Your task to perform on an android device: turn pop-ups on in chrome Image 0: 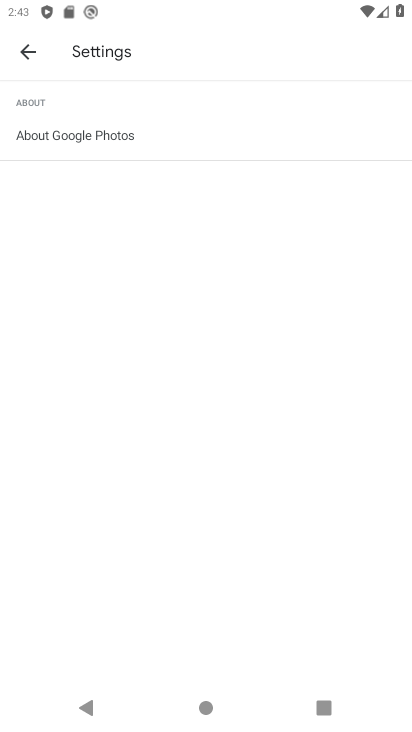
Step 0: press home button
Your task to perform on an android device: turn pop-ups on in chrome Image 1: 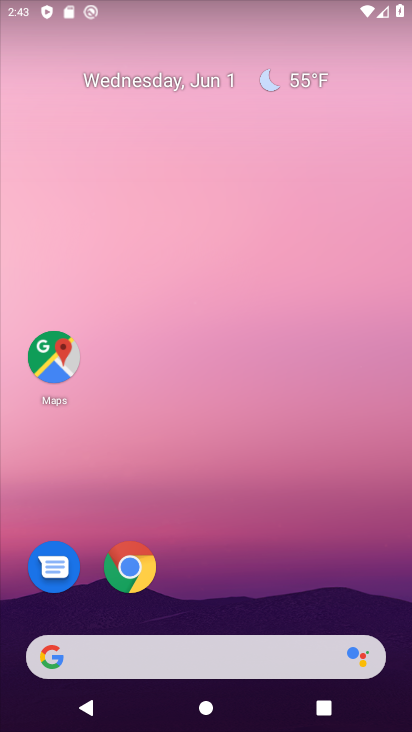
Step 1: click (135, 584)
Your task to perform on an android device: turn pop-ups on in chrome Image 2: 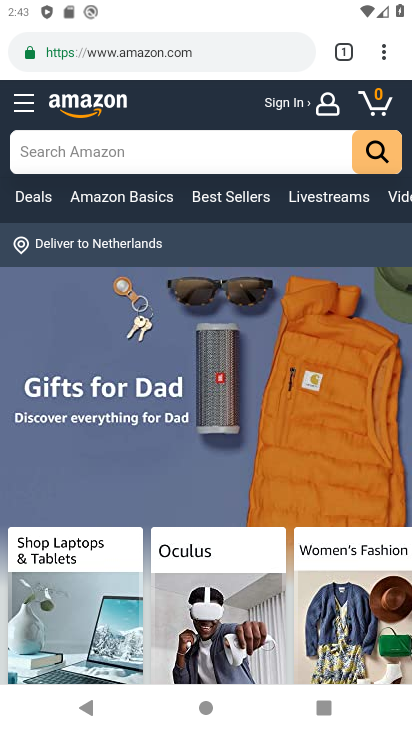
Step 2: click (383, 53)
Your task to perform on an android device: turn pop-ups on in chrome Image 3: 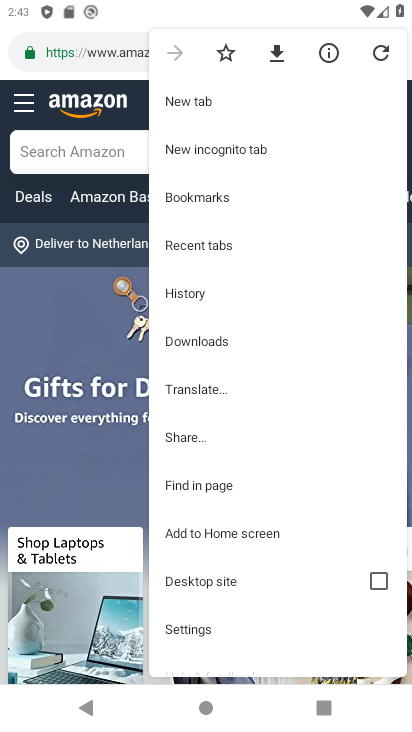
Step 3: click (198, 636)
Your task to perform on an android device: turn pop-ups on in chrome Image 4: 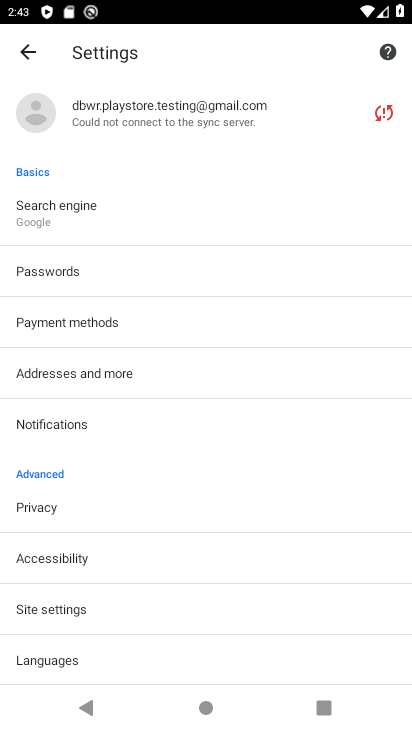
Step 4: drag from (167, 599) to (166, 276)
Your task to perform on an android device: turn pop-ups on in chrome Image 5: 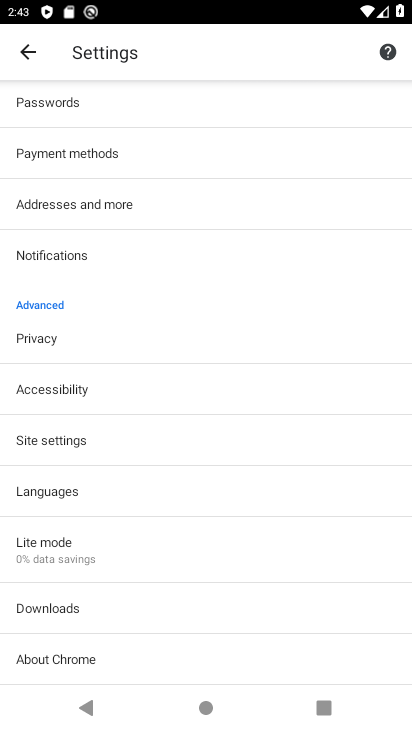
Step 5: click (51, 446)
Your task to perform on an android device: turn pop-ups on in chrome Image 6: 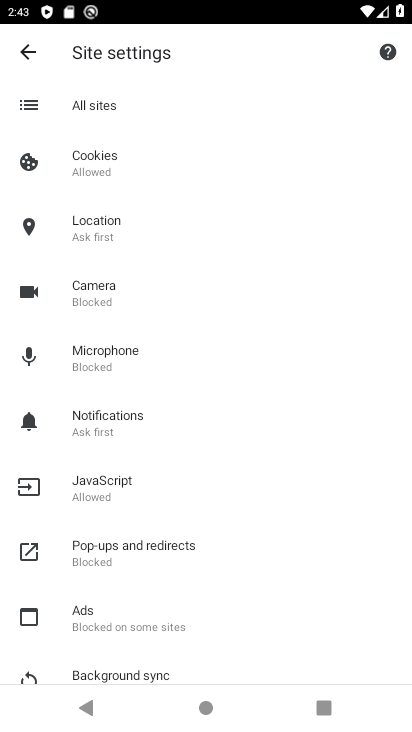
Step 6: click (94, 558)
Your task to perform on an android device: turn pop-ups on in chrome Image 7: 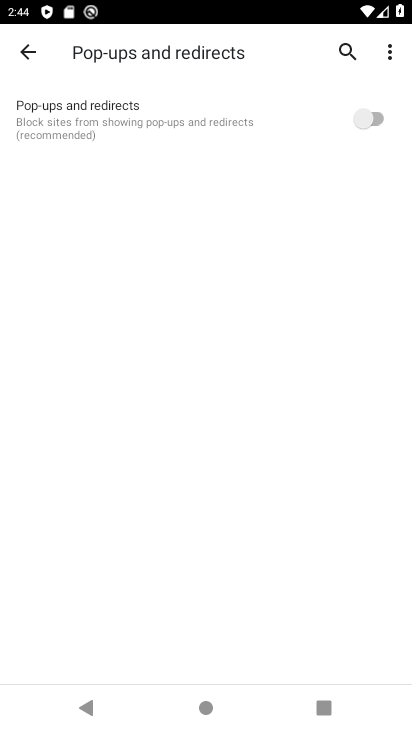
Step 7: click (381, 115)
Your task to perform on an android device: turn pop-ups on in chrome Image 8: 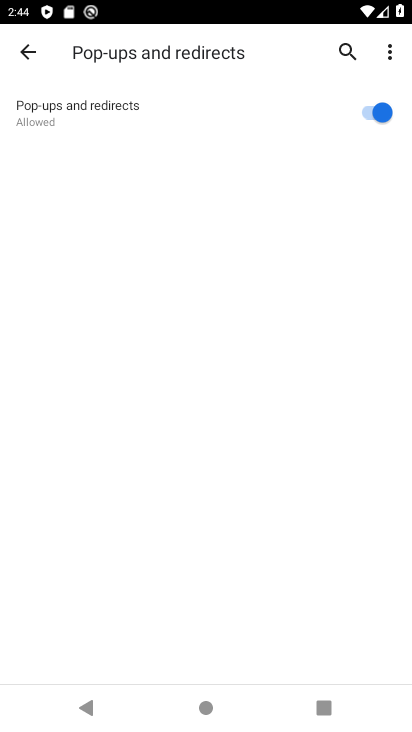
Step 8: task complete